Your task to perform on an android device: toggle notifications settings in the gmail app Image 0: 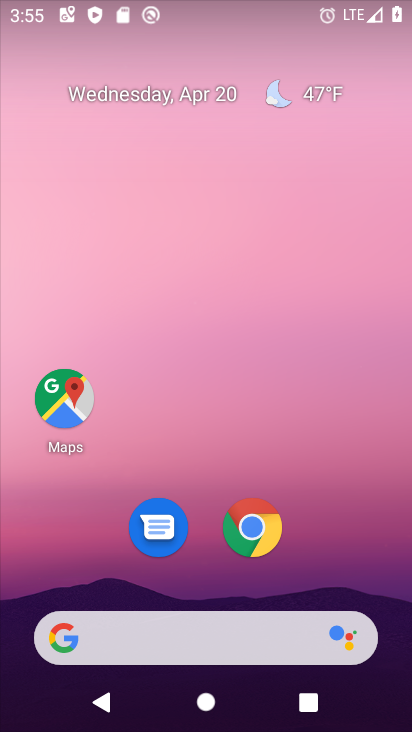
Step 0: drag from (369, 536) to (371, 127)
Your task to perform on an android device: toggle notifications settings in the gmail app Image 1: 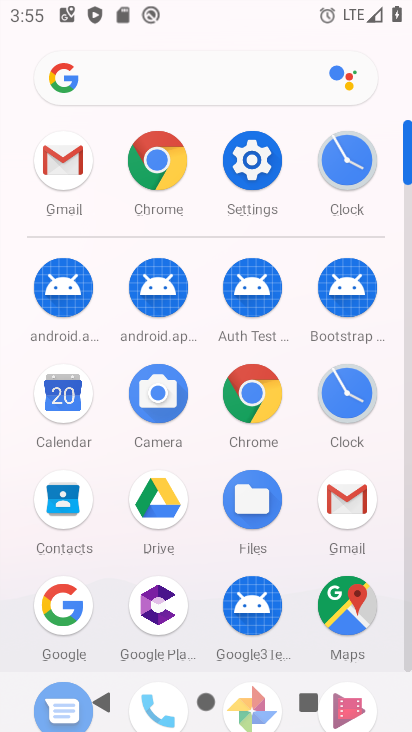
Step 1: click (359, 505)
Your task to perform on an android device: toggle notifications settings in the gmail app Image 2: 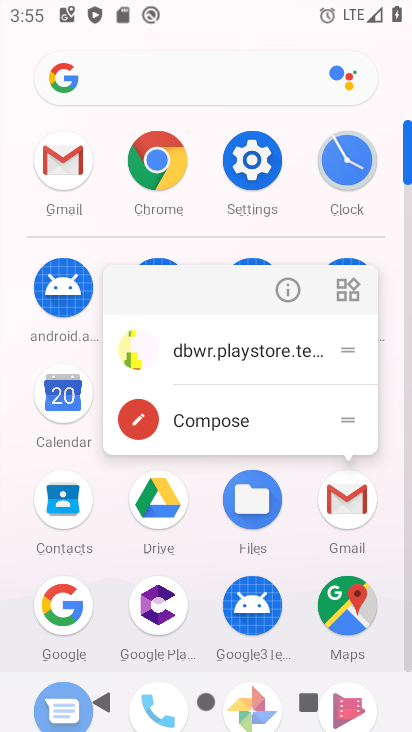
Step 2: click (337, 510)
Your task to perform on an android device: toggle notifications settings in the gmail app Image 3: 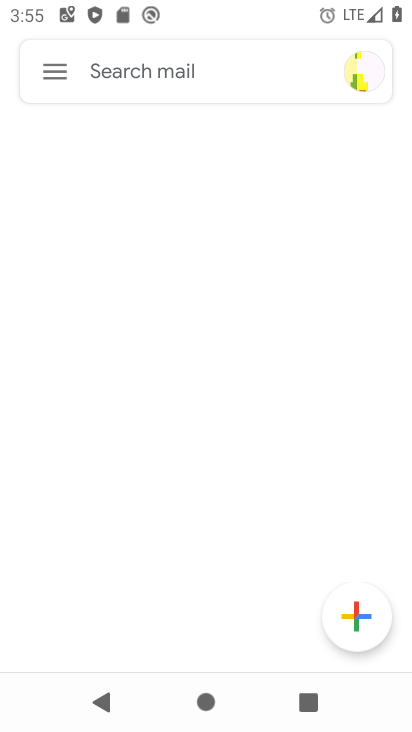
Step 3: click (55, 76)
Your task to perform on an android device: toggle notifications settings in the gmail app Image 4: 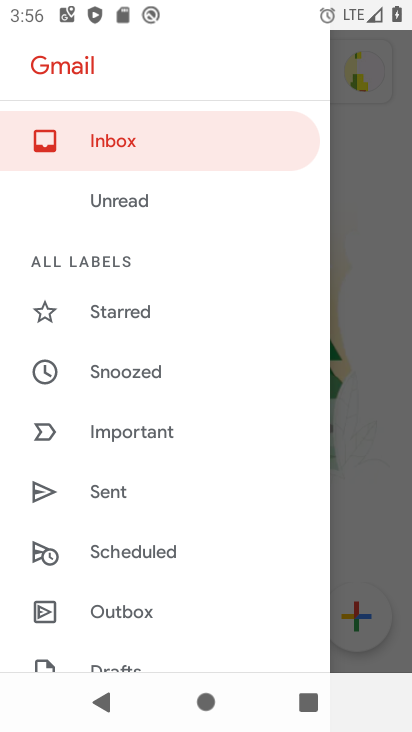
Step 4: drag from (196, 631) to (175, 351)
Your task to perform on an android device: toggle notifications settings in the gmail app Image 5: 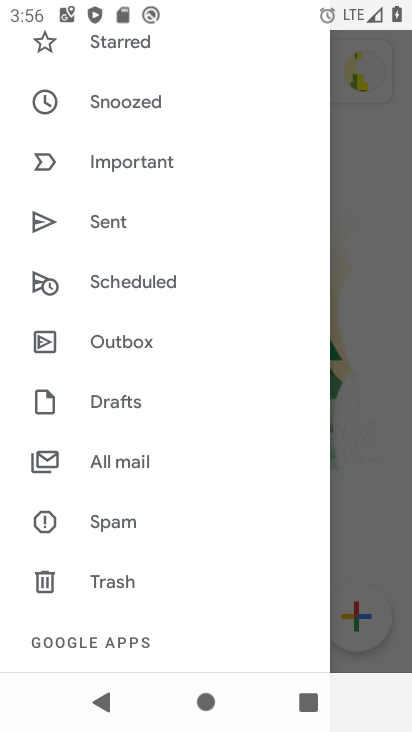
Step 5: drag from (166, 544) to (164, 419)
Your task to perform on an android device: toggle notifications settings in the gmail app Image 6: 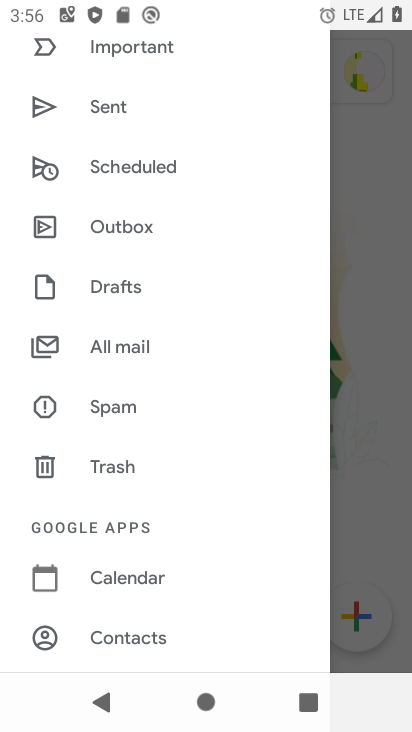
Step 6: drag from (166, 608) to (188, 353)
Your task to perform on an android device: toggle notifications settings in the gmail app Image 7: 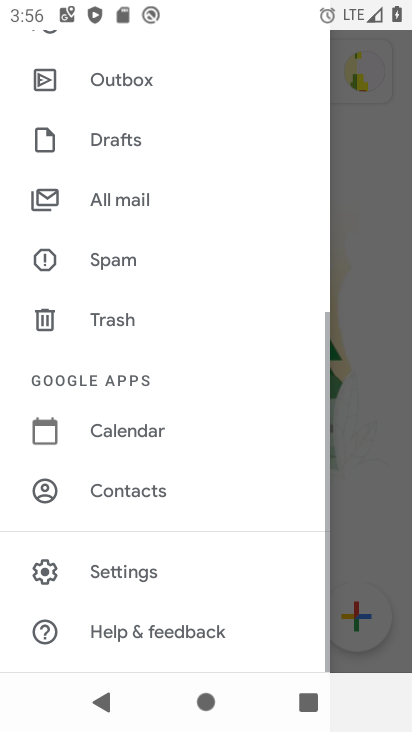
Step 7: click (130, 581)
Your task to perform on an android device: toggle notifications settings in the gmail app Image 8: 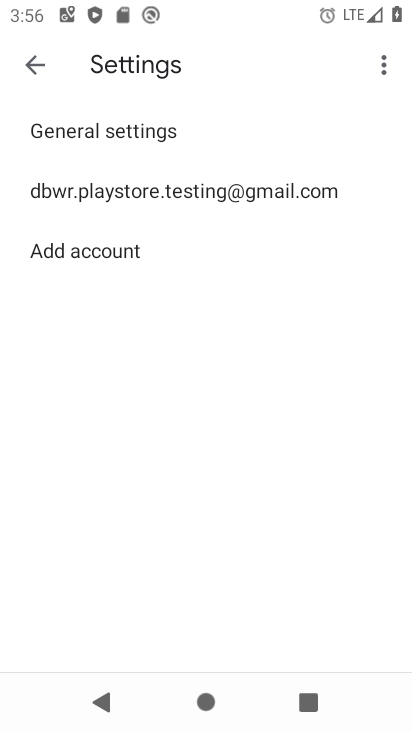
Step 8: click (85, 187)
Your task to perform on an android device: toggle notifications settings in the gmail app Image 9: 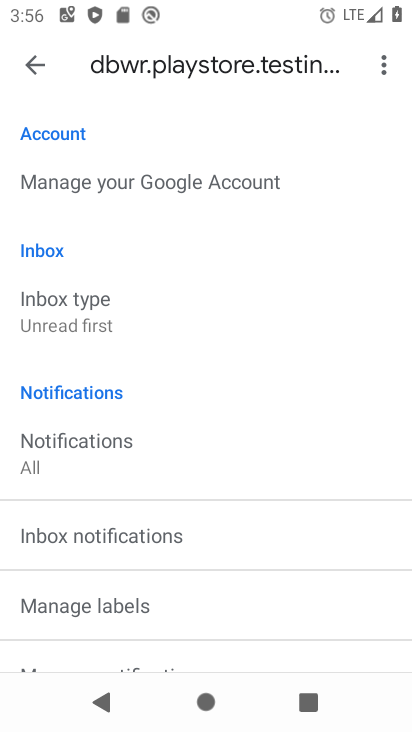
Step 9: click (125, 453)
Your task to perform on an android device: toggle notifications settings in the gmail app Image 10: 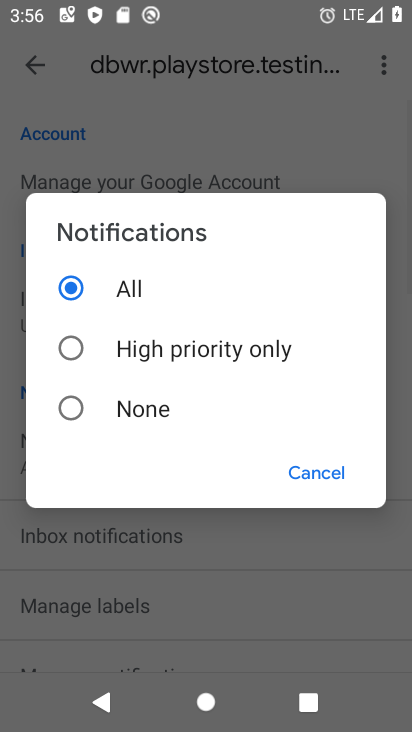
Step 10: click (201, 336)
Your task to perform on an android device: toggle notifications settings in the gmail app Image 11: 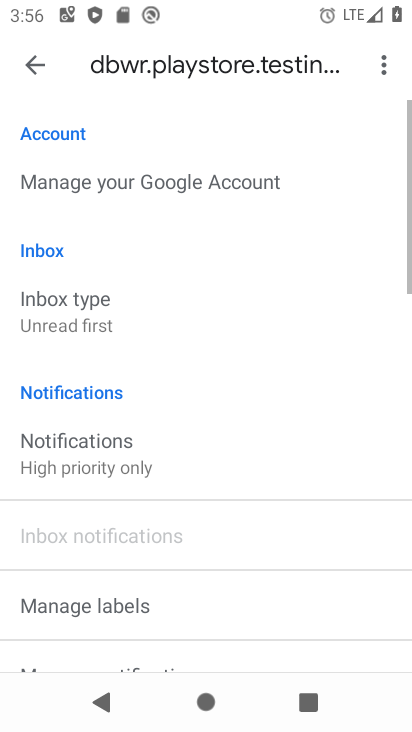
Step 11: task complete